Your task to perform on an android device: Open Google Chrome and click the shortcut for Amazon.com Image 0: 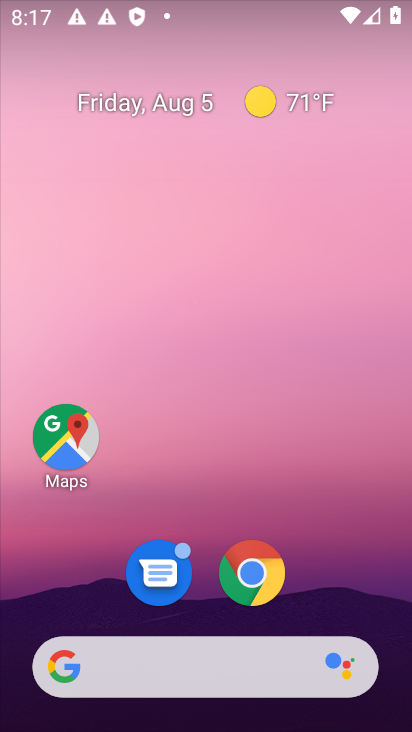
Step 0: click (243, 565)
Your task to perform on an android device: Open Google Chrome and click the shortcut for Amazon.com Image 1: 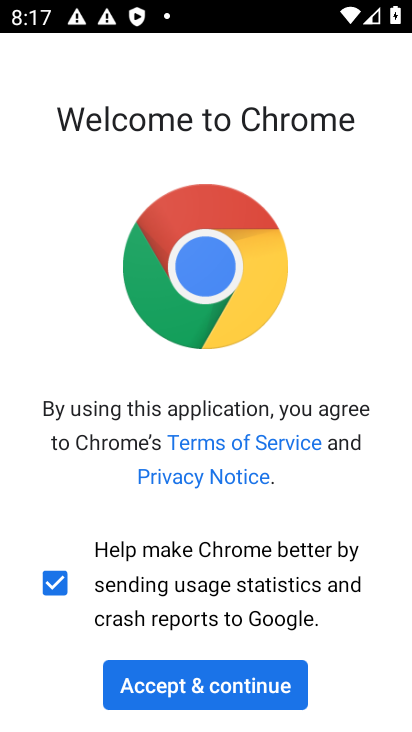
Step 1: press home button
Your task to perform on an android device: Open Google Chrome and click the shortcut for Amazon.com Image 2: 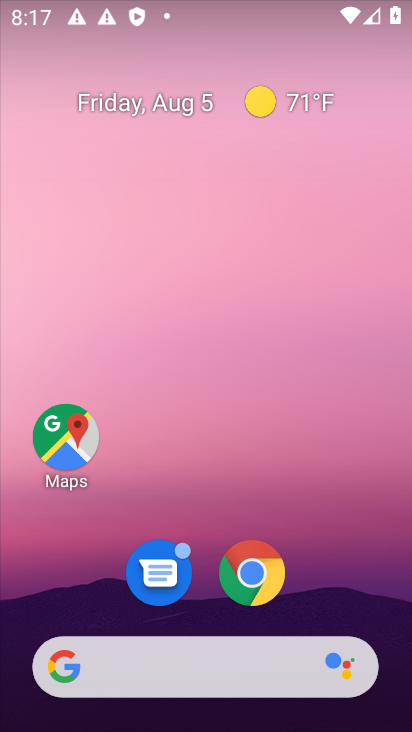
Step 2: click (247, 565)
Your task to perform on an android device: Open Google Chrome and click the shortcut for Amazon.com Image 3: 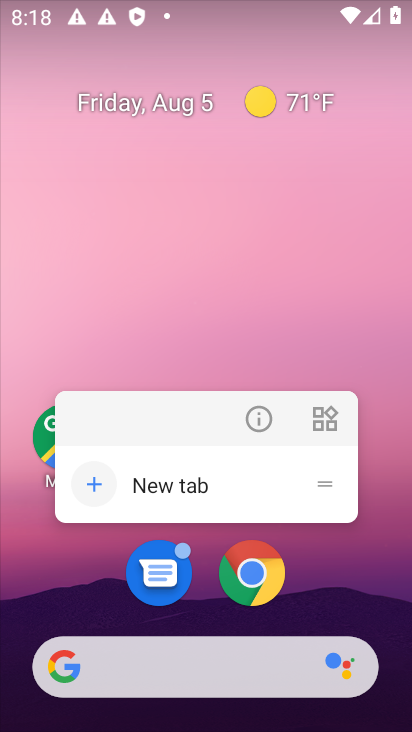
Step 3: click (274, 574)
Your task to perform on an android device: Open Google Chrome and click the shortcut for Amazon.com Image 4: 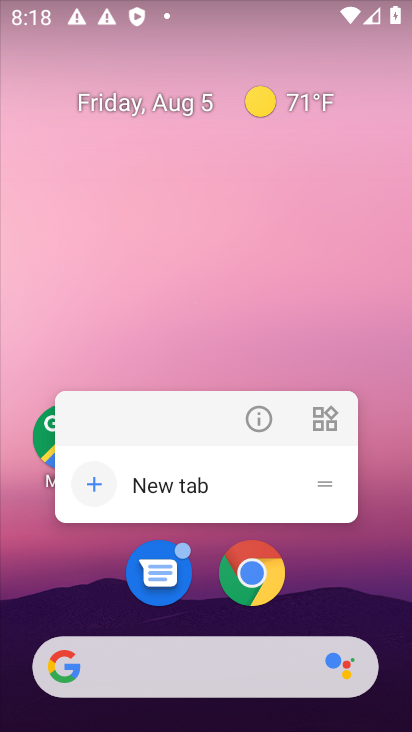
Step 4: drag from (347, 596) to (334, 0)
Your task to perform on an android device: Open Google Chrome and click the shortcut for Amazon.com Image 5: 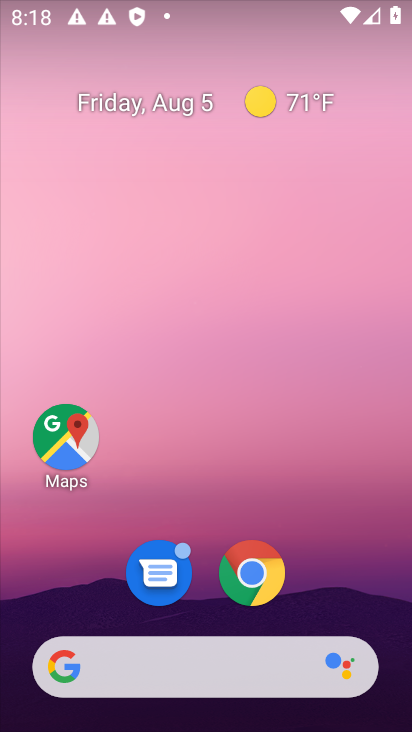
Step 5: drag from (318, 576) to (316, 0)
Your task to perform on an android device: Open Google Chrome and click the shortcut for Amazon.com Image 6: 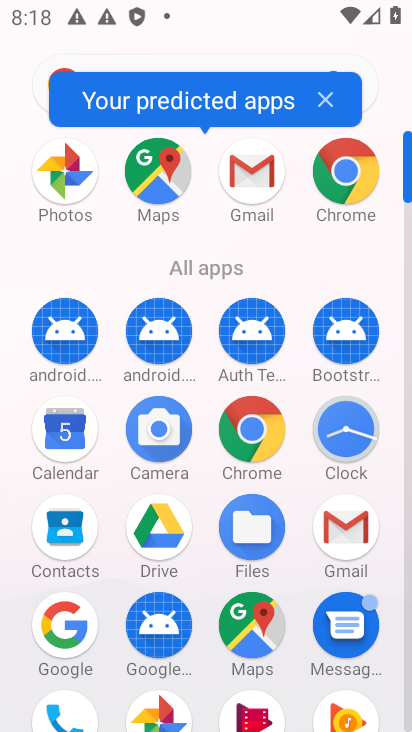
Step 6: click (333, 171)
Your task to perform on an android device: Open Google Chrome and click the shortcut for Amazon.com Image 7: 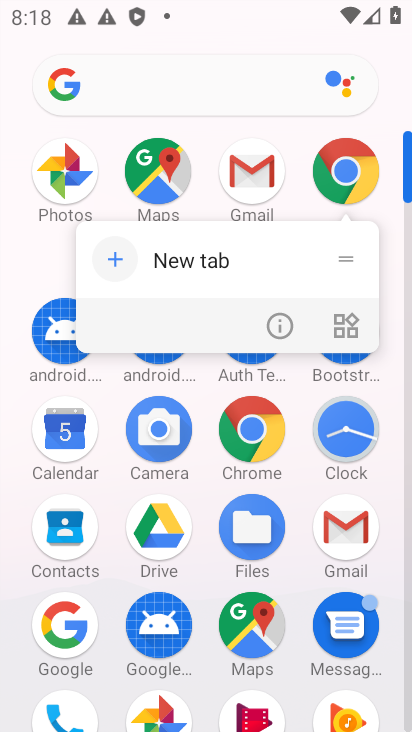
Step 7: click (334, 171)
Your task to perform on an android device: Open Google Chrome and click the shortcut for Amazon.com Image 8: 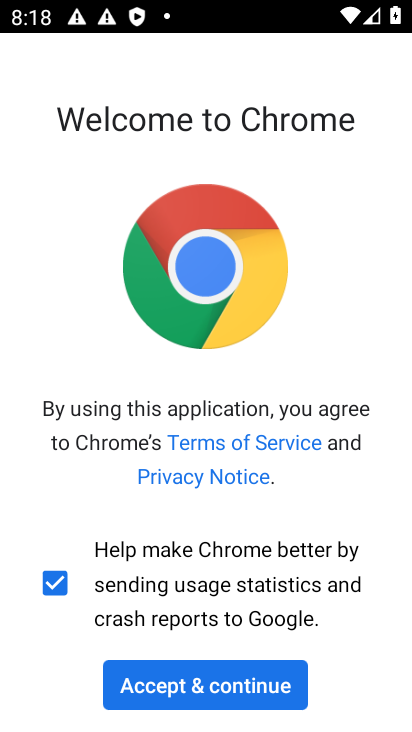
Step 8: click (206, 678)
Your task to perform on an android device: Open Google Chrome and click the shortcut for Amazon.com Image 9: 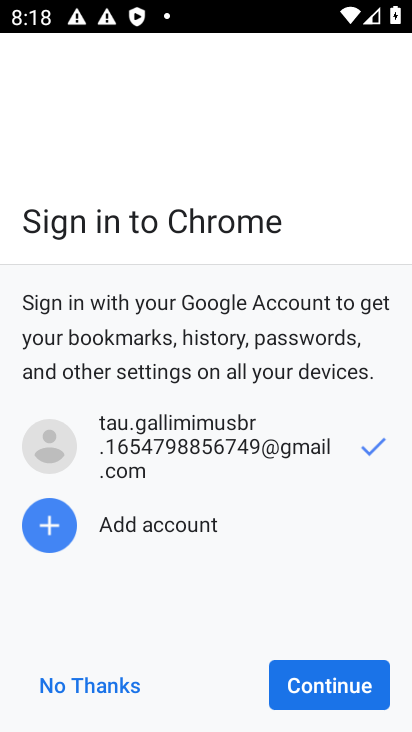
Step 9: click (342, 682)
Your task to perform on an android device: Open Google Chrome and click the shortcut for Amazon.com Image 10: 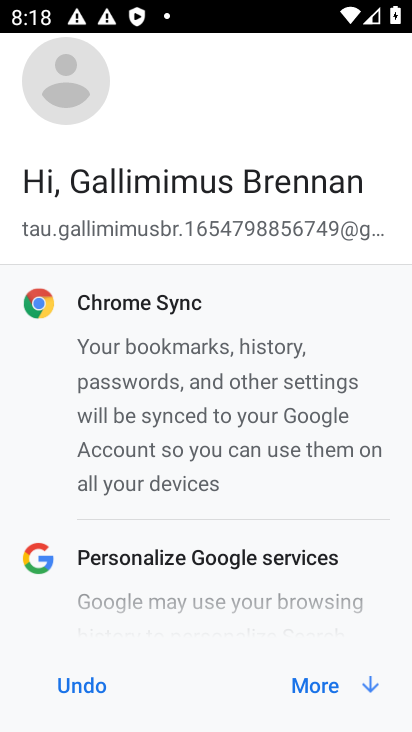
Step 10: click (337, 676)
Your task to perform on an android device: Open Google Chrome and click the shortcut for Amazon.com Image 11: 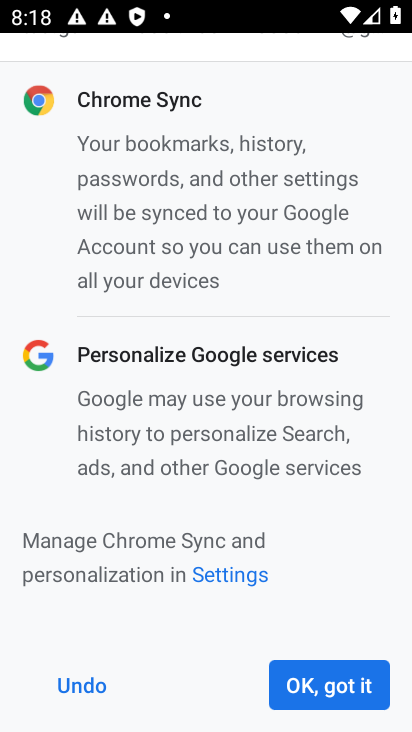
Step 11: click (337, 676)
Your task to perform on an android device: Open Google Chrome and click the shortcut for Amazon.com Image 12: 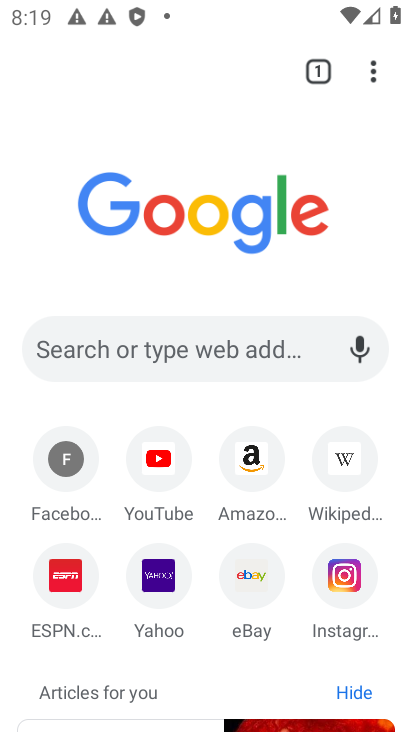
Step 12: click (250, 454)
Your task to perform on an android device: Open Google Chrome and click the shortcut for Amazon.com Image 13: 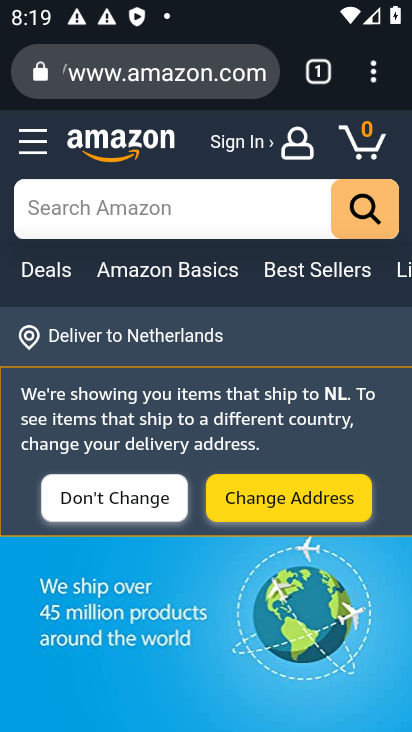
Step 13: task complete